Your task to perform on an android device: turn smart compose on in the gmail app Image 0: 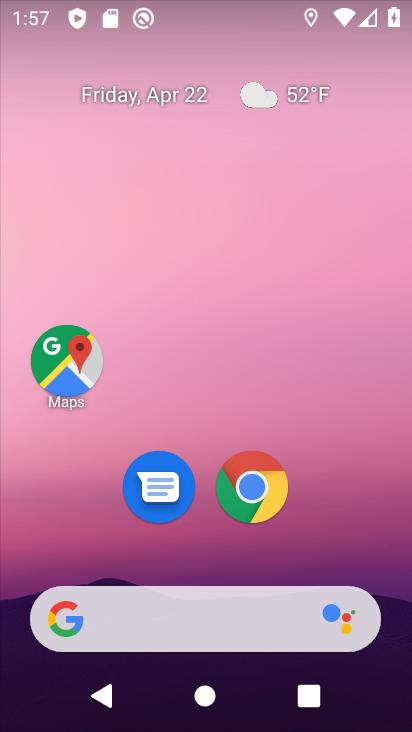
Step 0: click (267, 492)
Your task to perform on an android device: turn smart compose on in the gmail app Image 1: 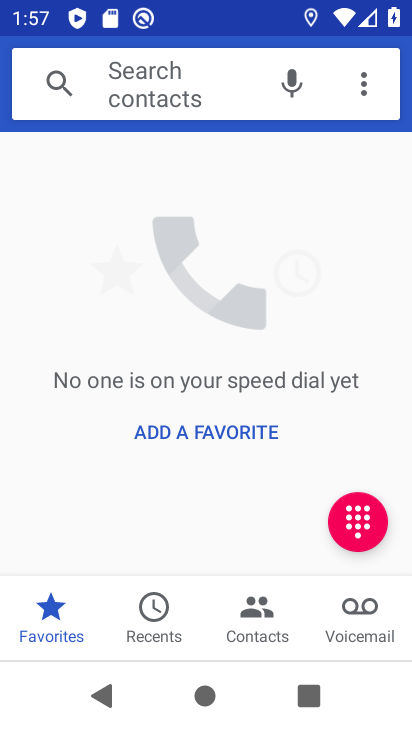
Step 1: press home button
Your task to perform on an android device: turn smart compose on in the gmail app Image 2: 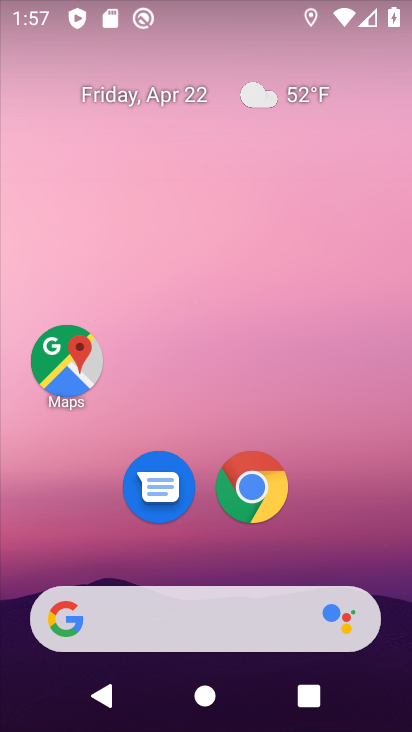
Step 2: drag from (205, 449) to (280, 1)
Your task to perform on an android device: turn smart compose on in the gmail app Image 3: 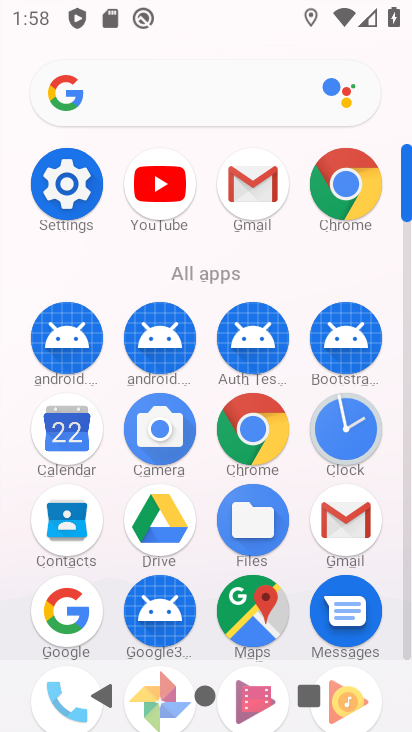
Step 3: click (348, 499)
Your task to perform on an android device: turn smart compose on in the gmail app Image 4: 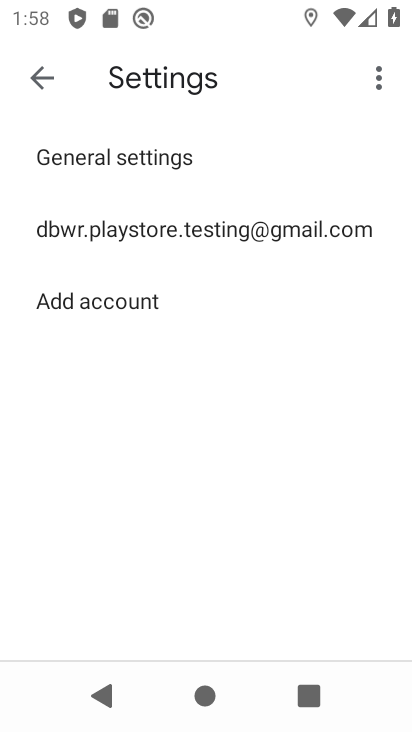
Step 4: click (98, 225)
Your task to perform on an android device: turn smart compose on in the gmail app Image 5: 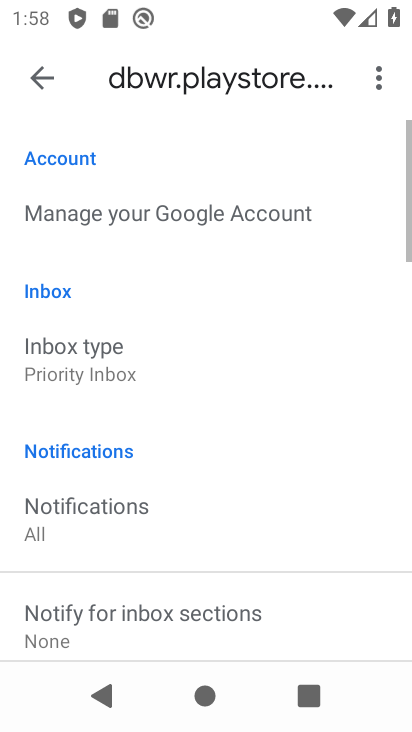
Step 5: task complete